Your task to perform on an android device: Show me popular games on the Play Store Image 0: 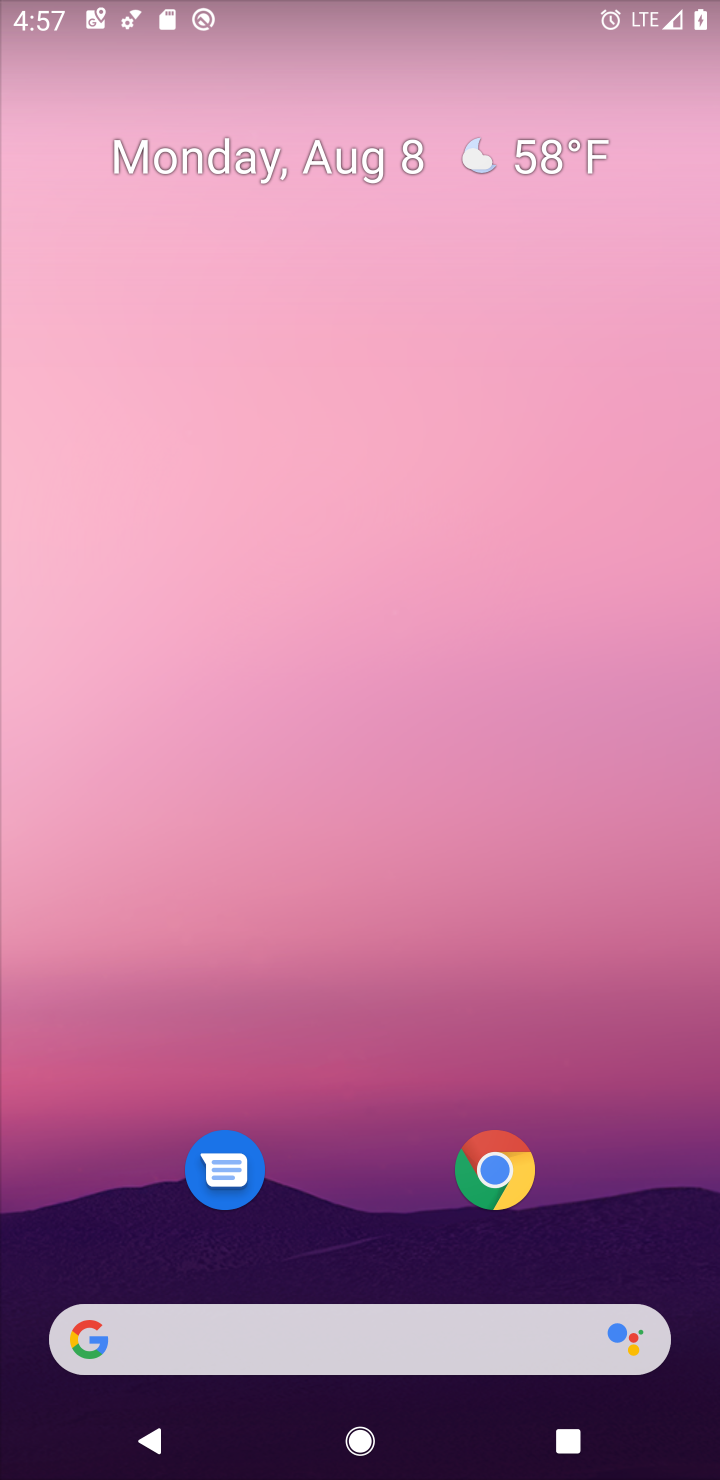
Step 0: drag from (353, 1207) to (350, 363)
Your task to perform on an android device: Show me popular games on the Play Store Image 1: 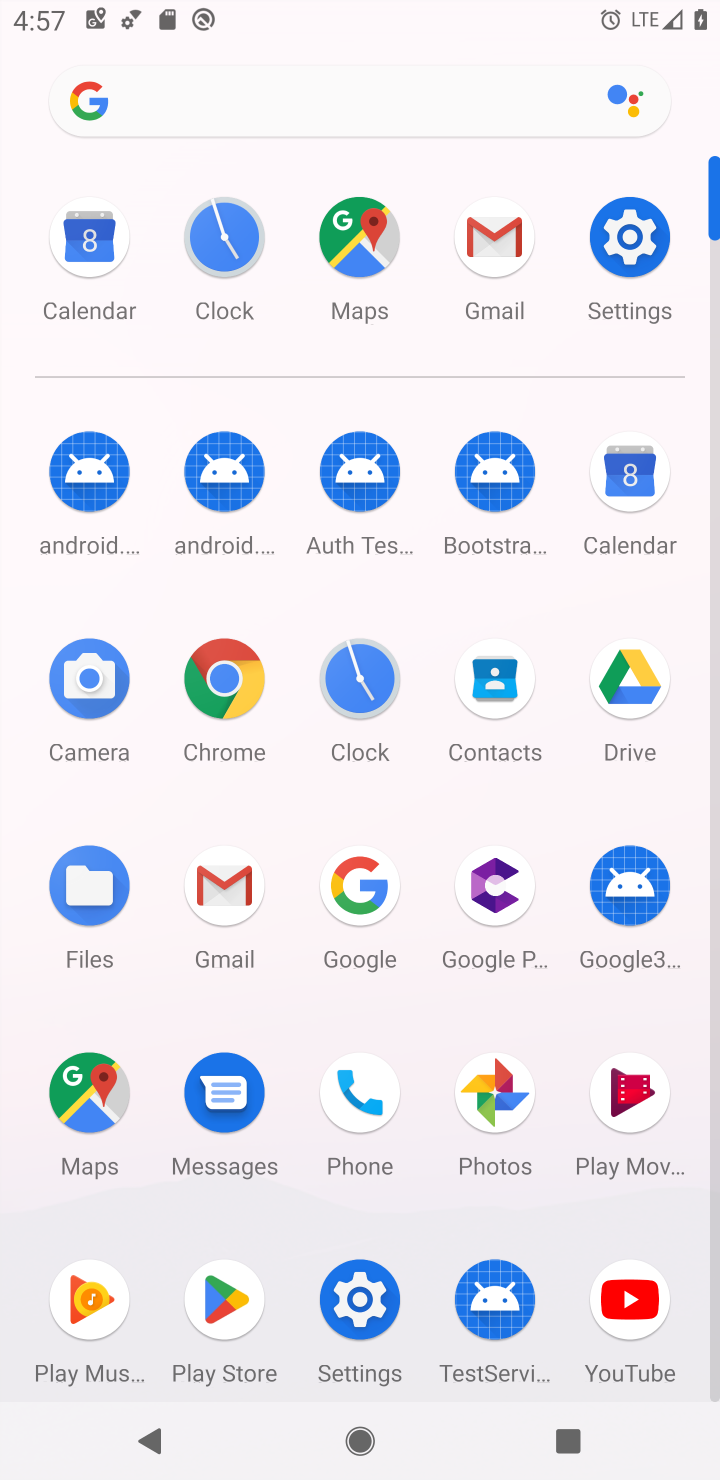
Step 1: click (221, 1291)
Your task to perform on an android device: Show me popular games on the Play Store Image 2: 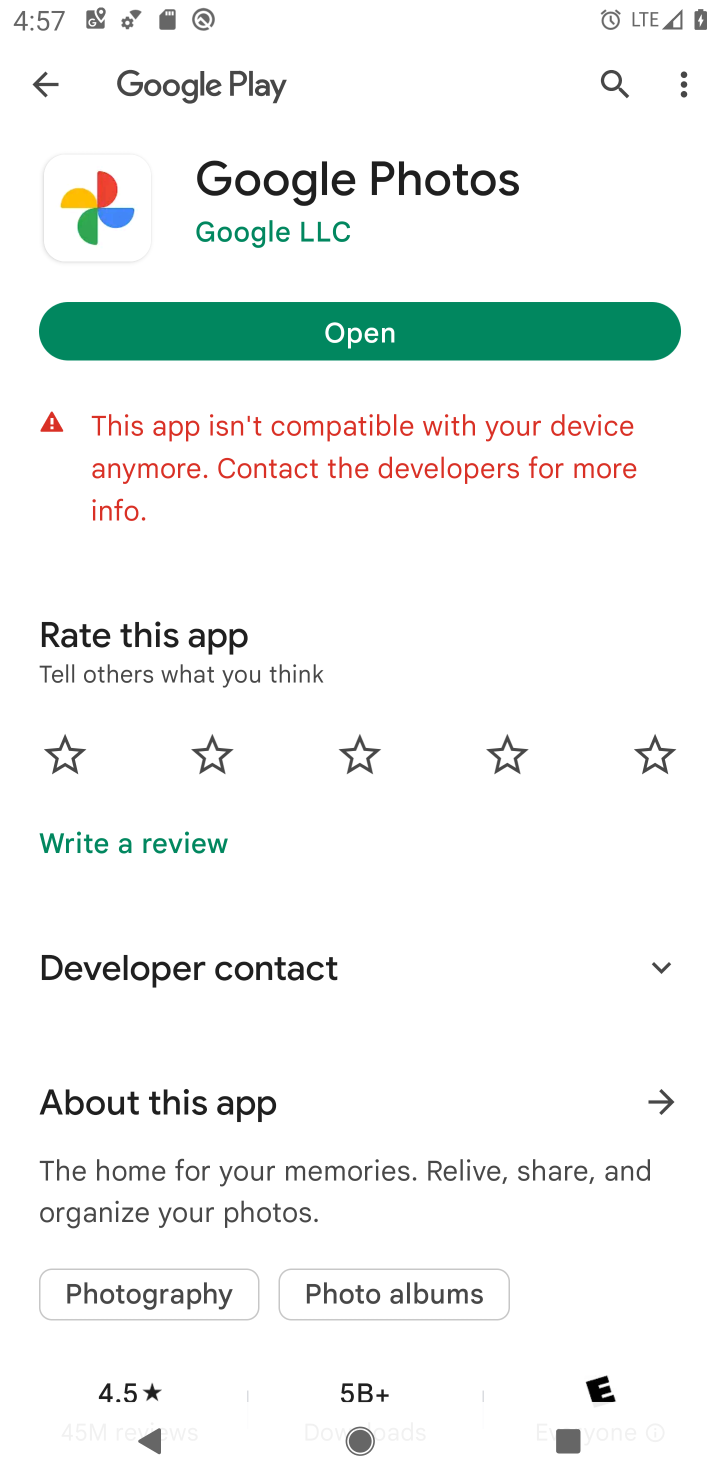
Step 2: click (42, 77)
Your task to perform on an android device: Show me popular games on the Play Store Image 3: 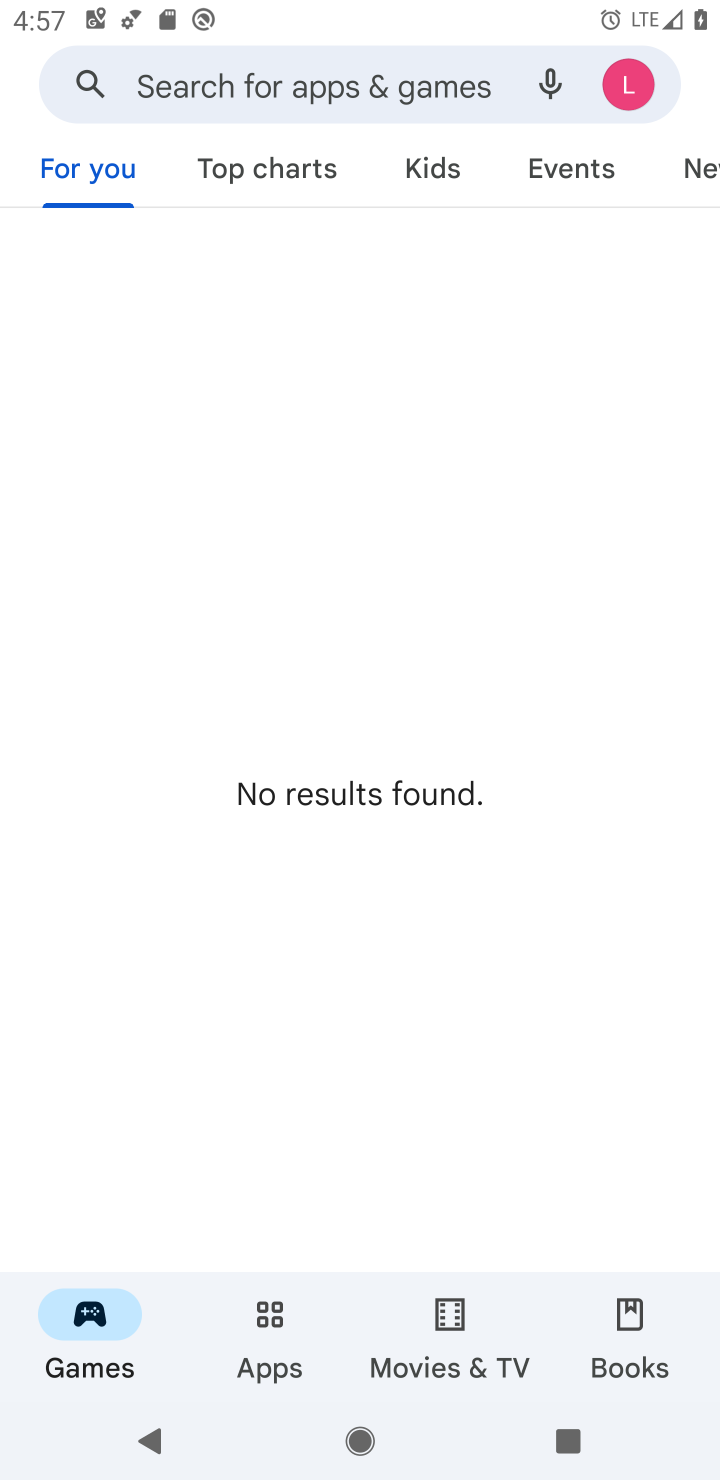
Step 3: click (252, 189)
Your task to perform on an android device: Show me popular games on the Play Store Image 4: 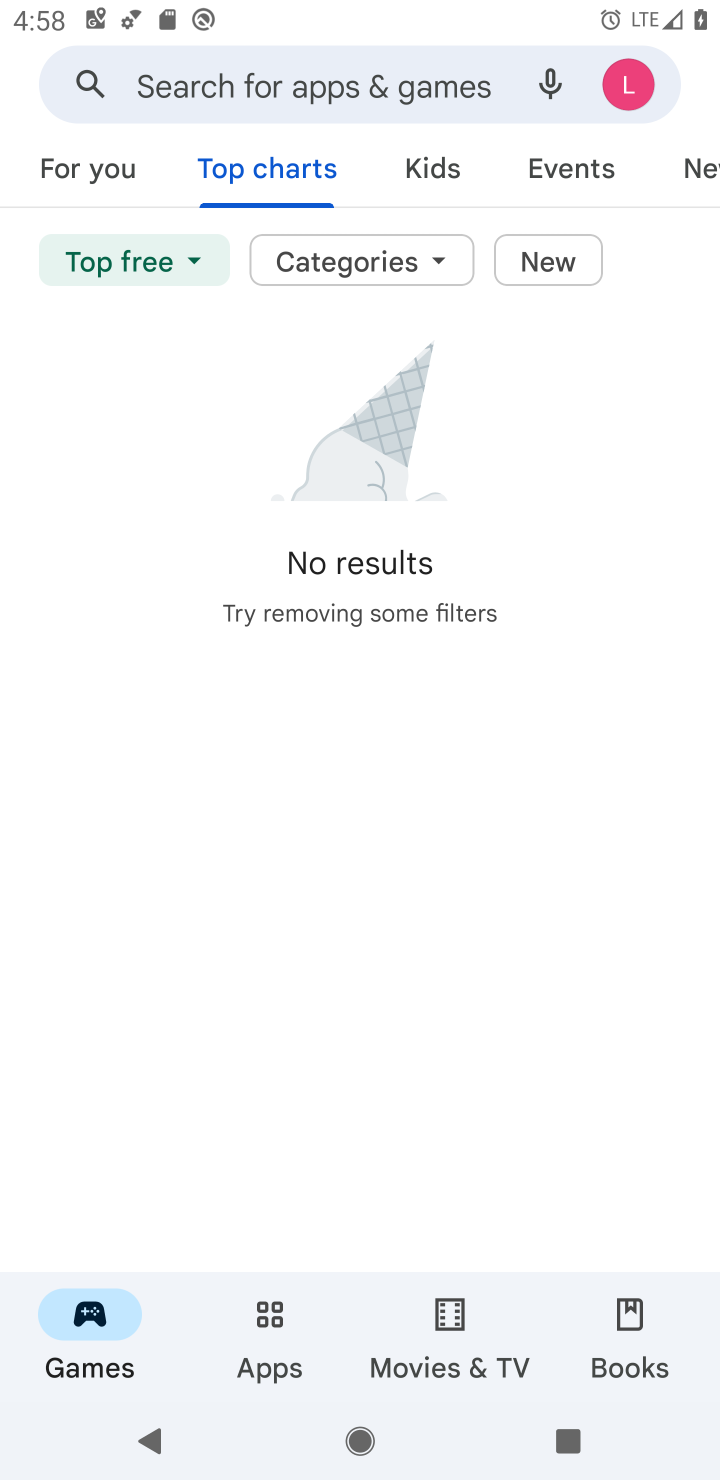
Step 4: task complete